Your task to perform on an android device: turn off improve location accuracy Image 0: 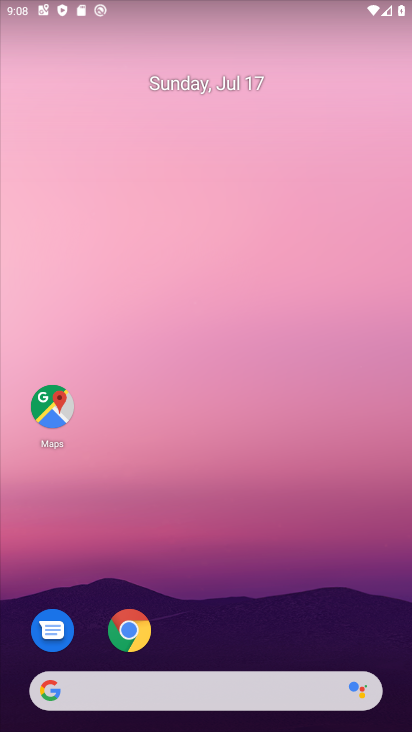
Step 0: drag from (331, 624) to (366, 161)
Your task to perform on an android device: turn off improve location accuracy Image 1: 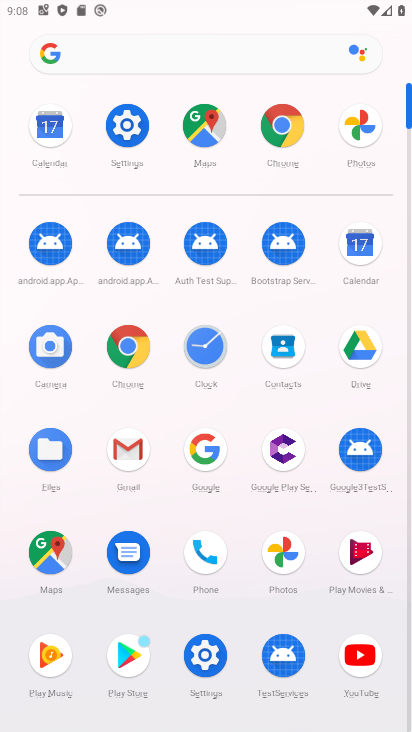
Step 1: click (129, 133)
Your task to perform on an android device: turn off improve location accuracy Image 2: 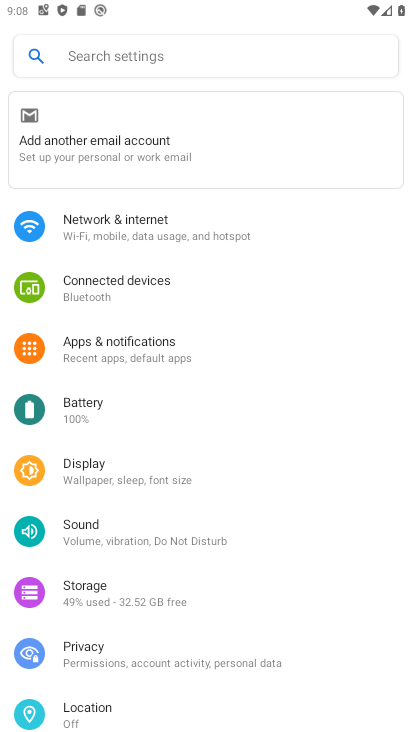
Step 2: drag from (338, 516) to (342, 394)
Your task to perform on an android device: turn off improve location accuracy Image 3: 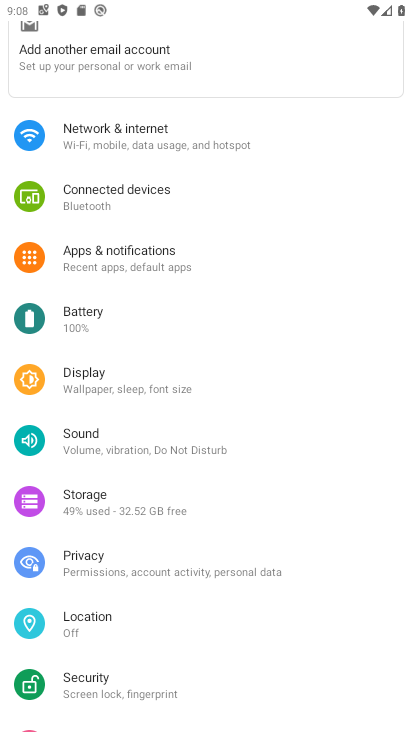
Step 3: drag from (335, 524) to (340, 397)
Your task to perform on an android device: turn off improve location accuracy Image 4: 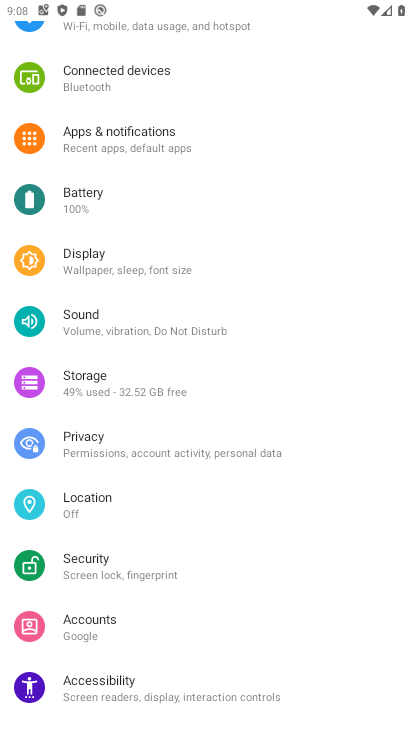
Step 4: drag from (346, 517) to (346, 311)
Your task to perform on an android device: turn off improve location accuracy Image 5: 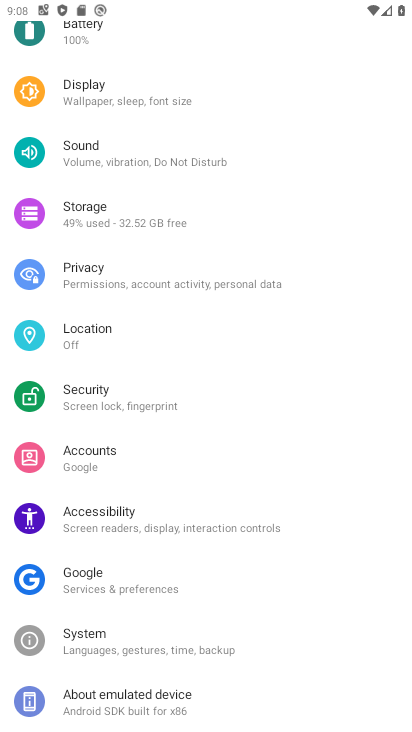
Step 5: drag from (354, 443) to (338, 298)
Your task to perform on an android device: turn off improve location accuracy Image 6: 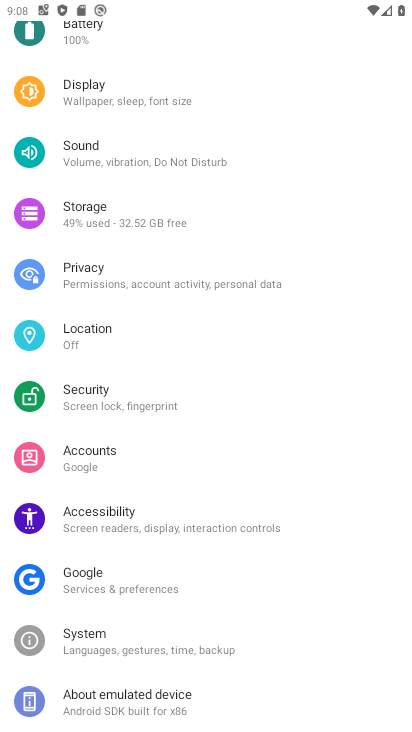
Step 6: click (195, 347)
Your task to perform on an android device: turn off improve location accuracy Image 7: 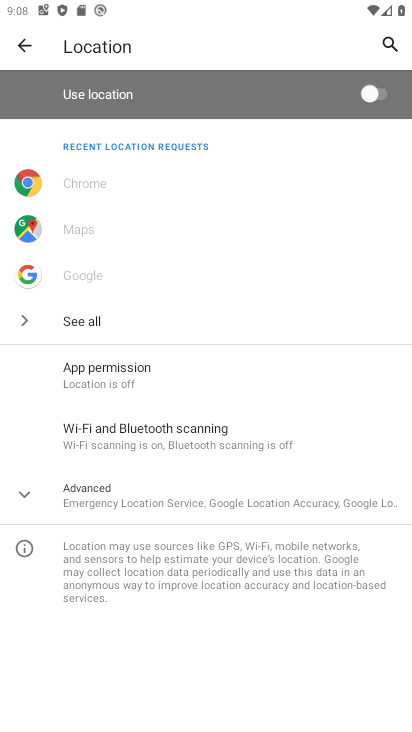
Step 7: click (196, 494)
Your task to perform on an android device: turn off improve location accuracy Image 8: 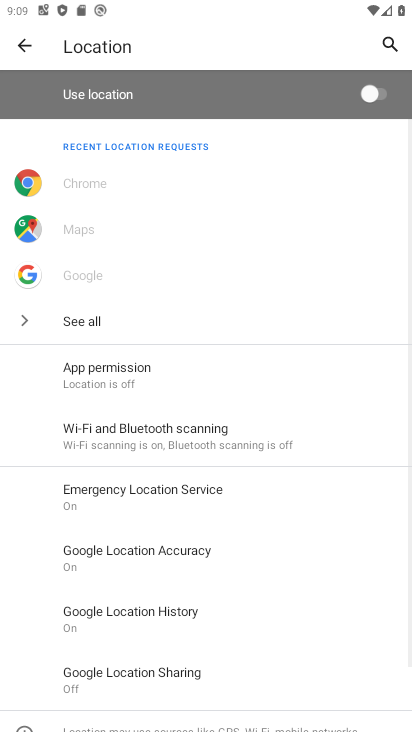
Step 8: drag from (280, 575) to (280, 464)
Your task to perform on an android device: turn off improve location accuracy Image 9: 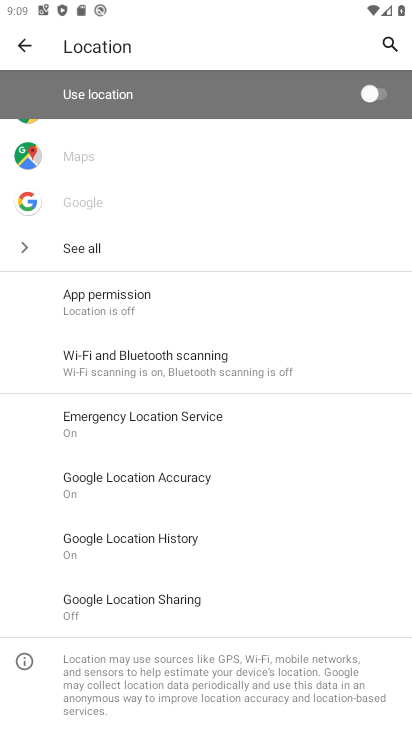
Step 9: click (195, 483)
Your task to perform on an android device: turn off improve location accuracy Image 10: 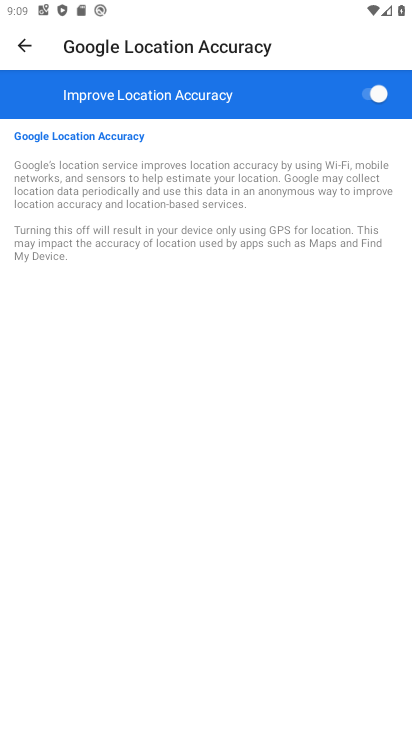
Step 10: click (378, 94)
Your task to perform on an android device: turn off improve location accuracy Image 11: 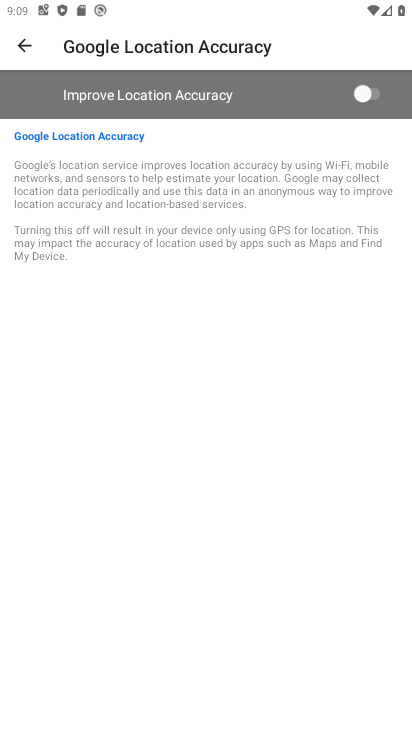
Step 11: task complete